Your task to perform on an android device: add a contact Image 0: 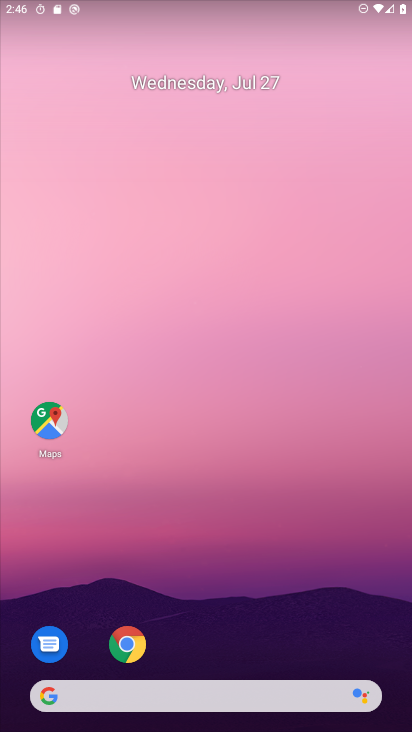
Step 0: drag from (209, 615) to (232, 12)
Your task to perform on an android device: add a contact Image 1: 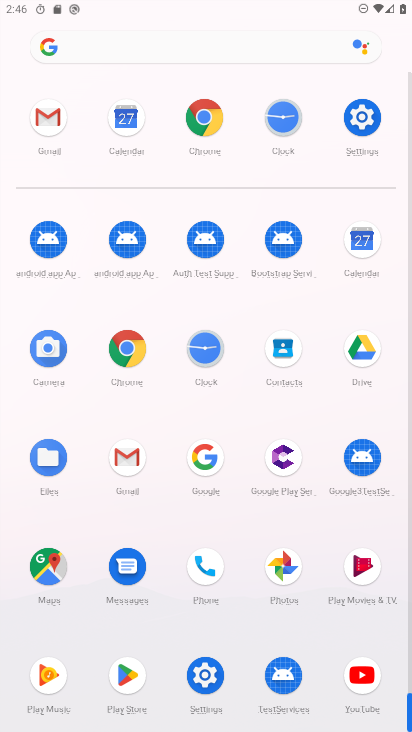
Step 1: click (297, 365)
Your task to perform on an android device: add a contact Image 2: 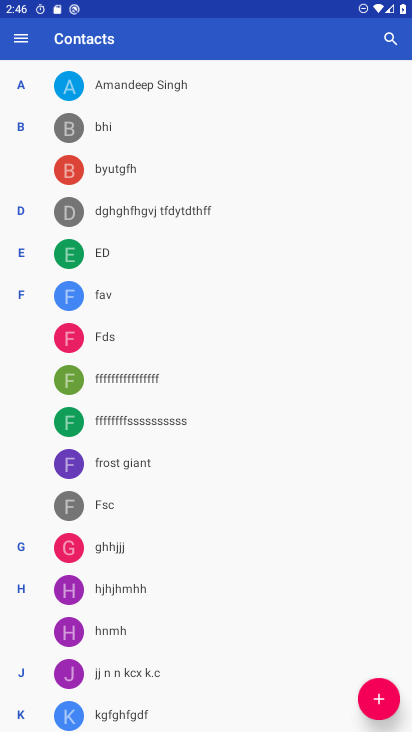
Step 2: click (381, 698)
Your task to perform on an android device: add a contact Image 3: 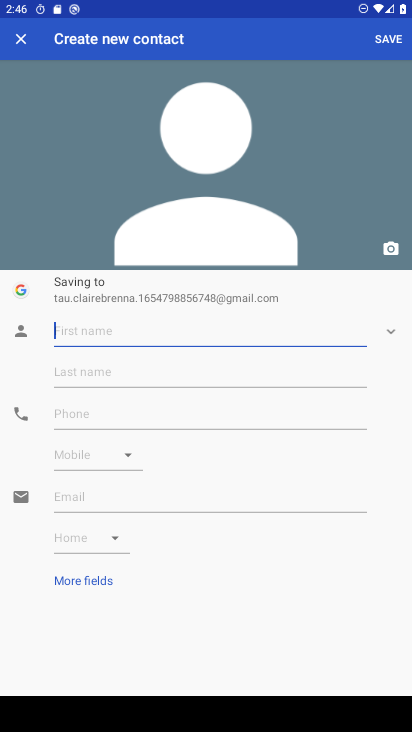
Step 3: type "mohaba"
Your task to perform on an android device: add a contact Image 4: 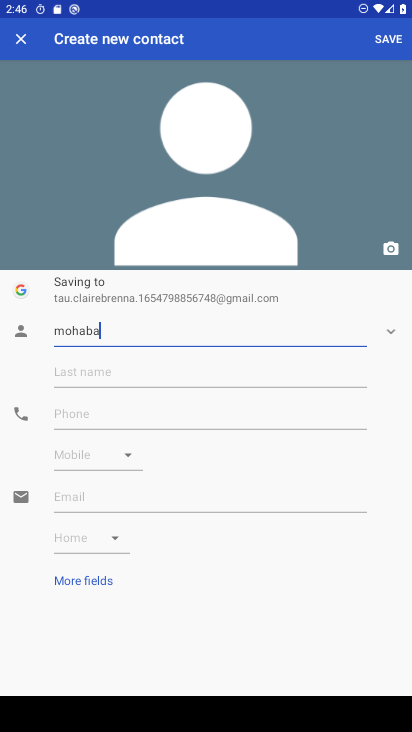
Step 4: click (388, 44)
Your task to perform on an android device: add a contact Image 5: 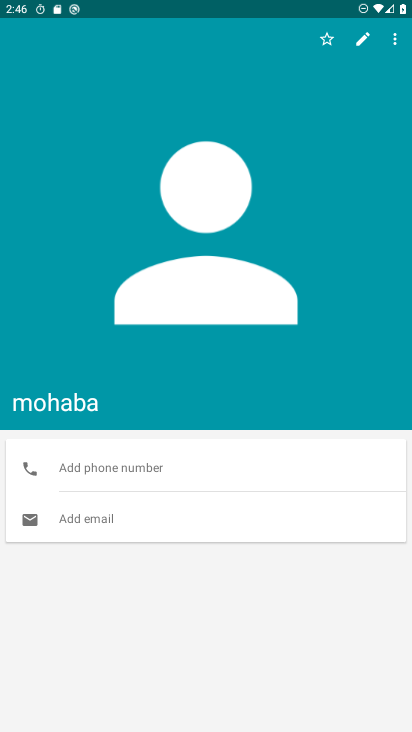
Step 5: task complete